Your task to perform on an android device: visit the assistant section in the google photos Image 0: 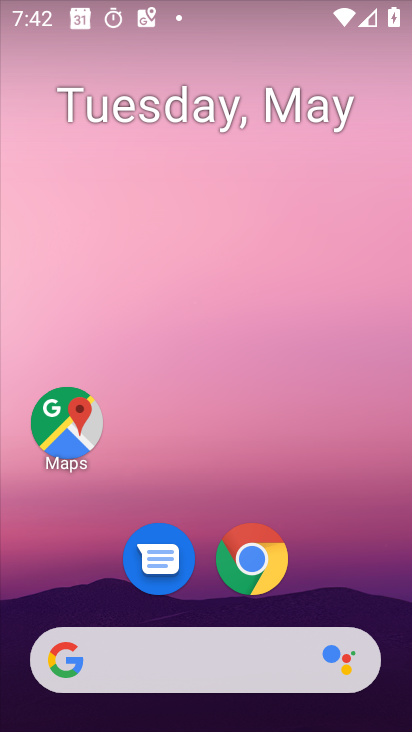
Step 0: drag from (395, 661) to (282, 152)
Your task to perform on an android device: visit the assistant section in the google photos Image 1: 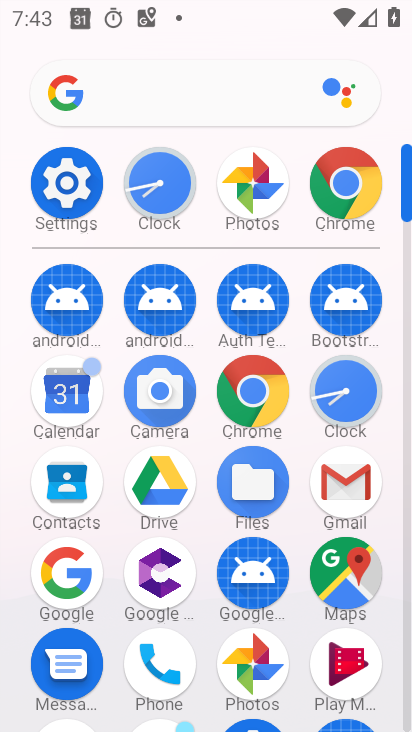
Step 1: click (274, 654)
Your task to perform on an android device: visit the assistant section in the google photos Image 2: 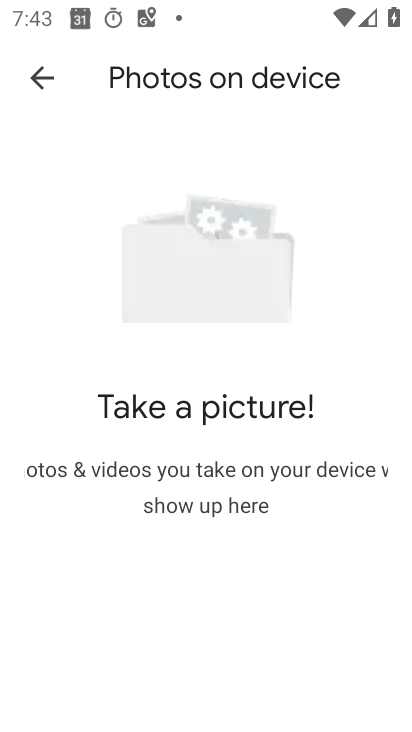
Step 2: press back button
Your task to perform on an android device: visit the assistant section in the google photos Image 3: 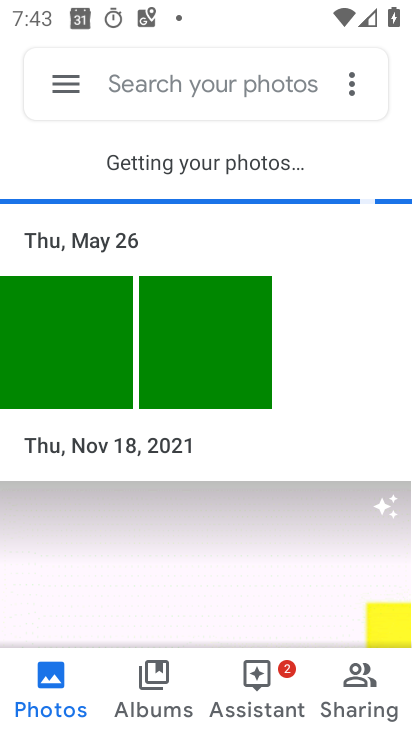
Step 3: click (252, 682)
Your task to perform on an android device: visit the assistant section in the google photos Image 4: 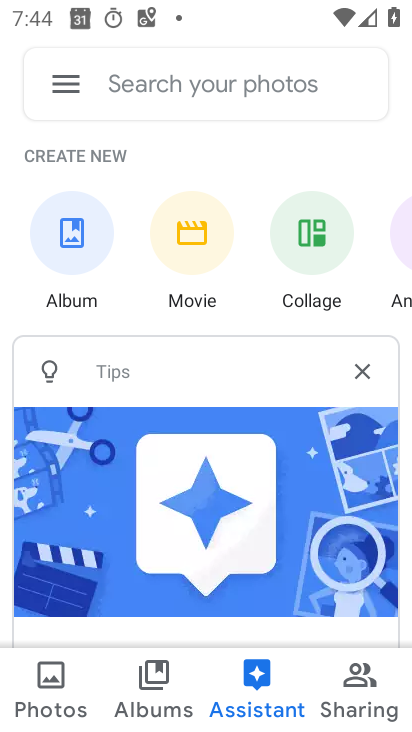
Step 4: task complete